Your task to perform on an android device: See recent photos Image 0: 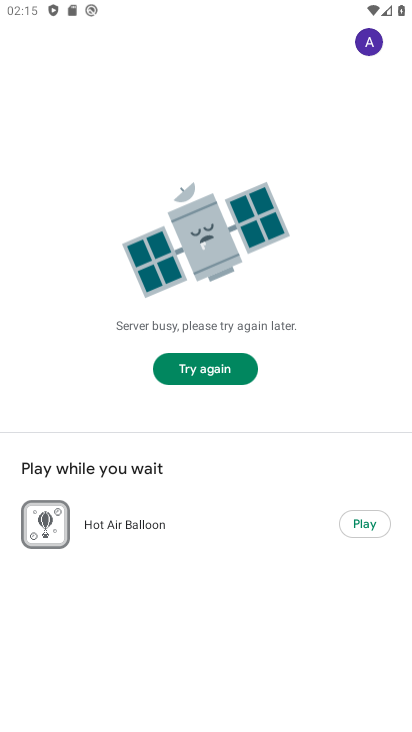
Step 0: press home button
Your task to perform on an android device: See recent photos Image 1: 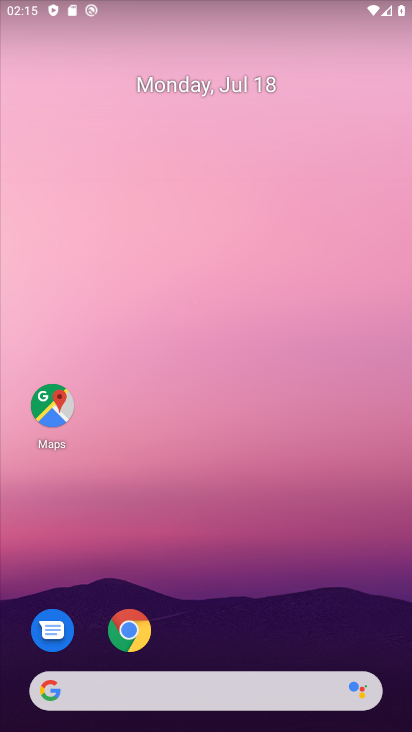
Step 1: drag from (157, 622) to (191, 80)
Your task to perform on an android device: See recent photos Image 2: 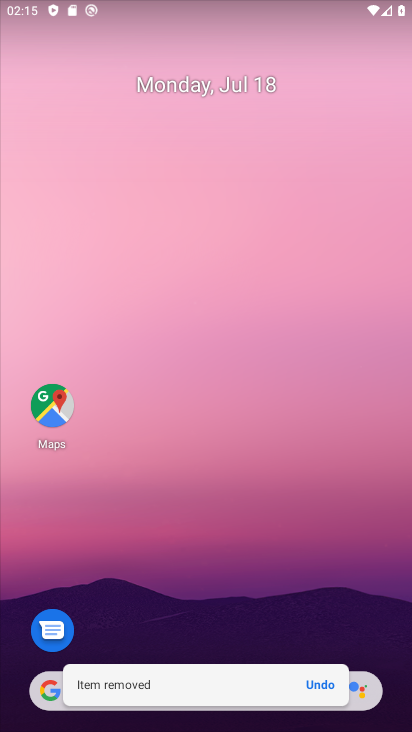
Step 2: click (318, 694)
Your task to perform on an android device: See recent photos Image 3: 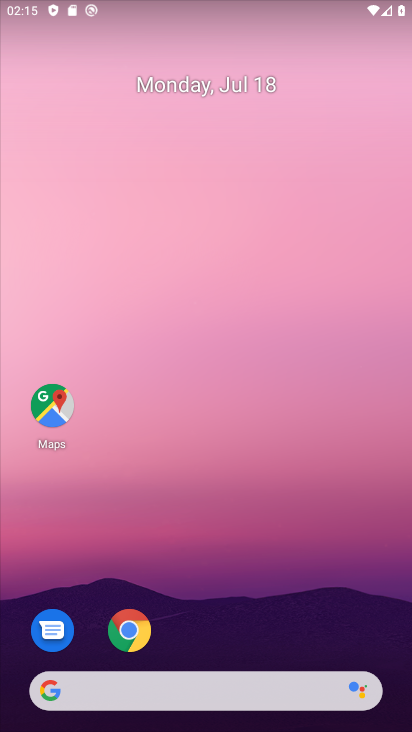
Step 3: drag from (186, 654) to (255, 99)
Your task to perform on an android device: See recent photos Image 4: 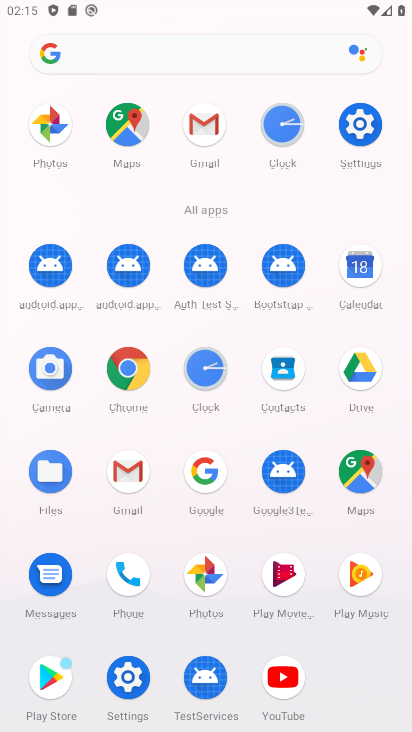
Step 4: click (42, 113)
Your task to perform on an android device: See recent photos Image 5: 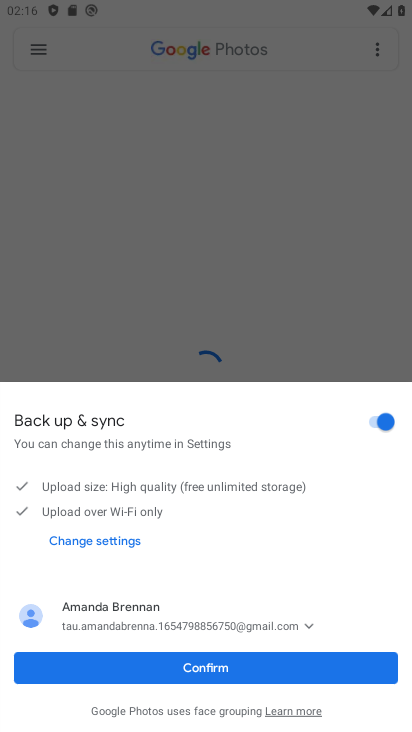
Step 5: click (211, 657)
Your task to perform on an android device: See recent photos Image 6: 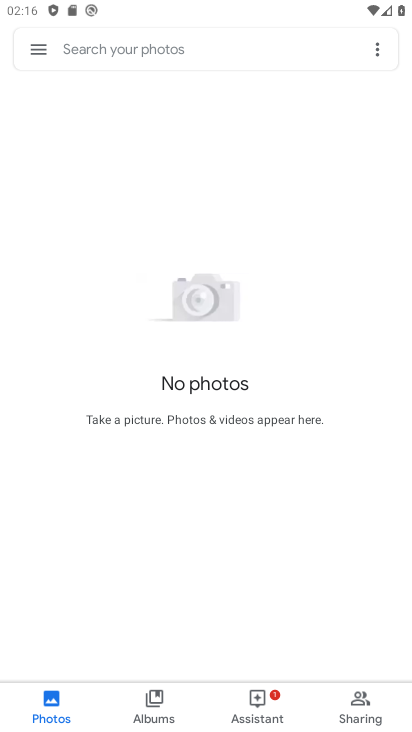
Step 6: task complete